Your task to perform on an android device: Search for sushi restaurants on Maps Image 0: 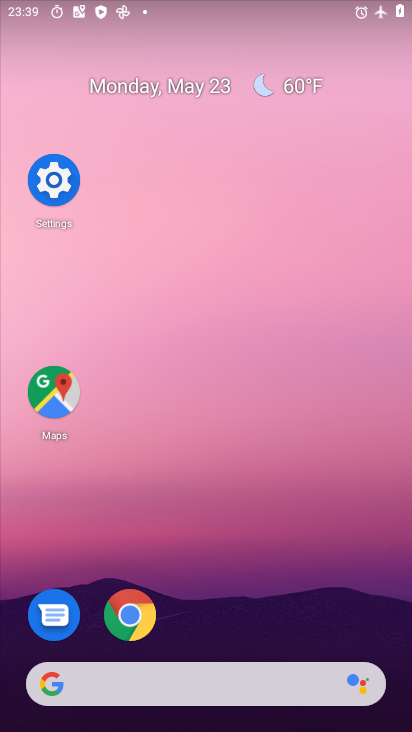
Step 0: click (60, 388)
Your task to perform on an android device: Search for sushi restaurants on Maps Image 1: 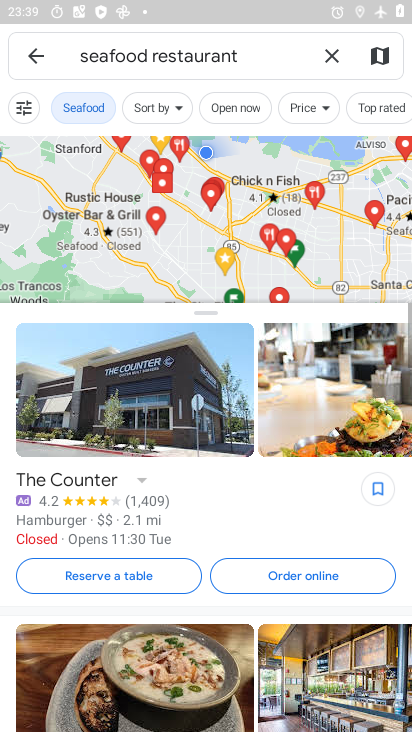
Step 1: click (331, 58)
Your task to perform on an android device: Search for sushi restaurants on Maps Image 2: 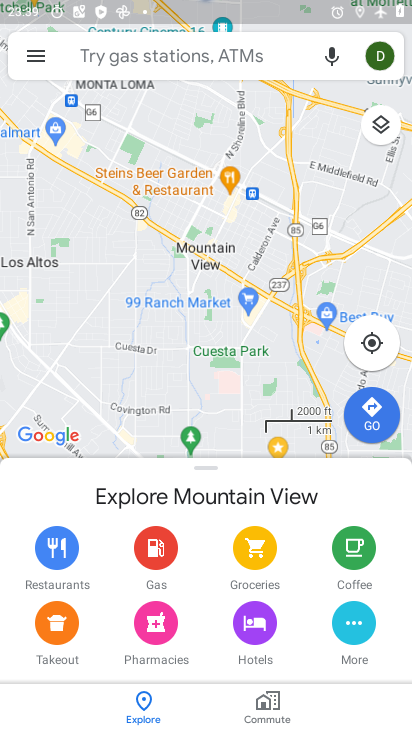
Step 2: click (174, 60)
Your task to perform on an android device: Search for sushi restaurants on Maps Image 3: 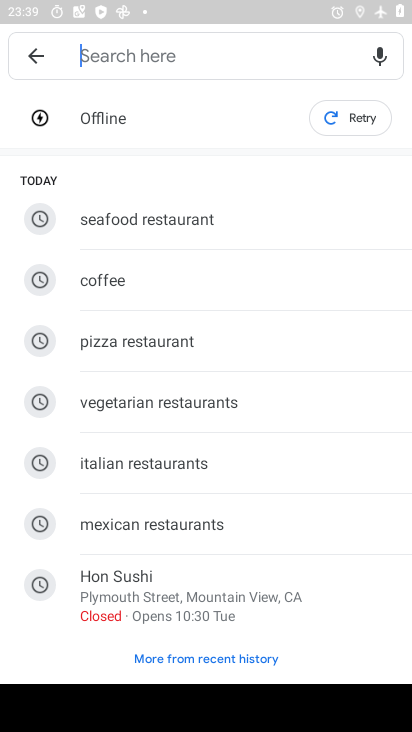
Step 3: drag from (159, 546) to (188, 269)
Your task to perform on an android device: Search for sushi restaurants on Maps Image 4: 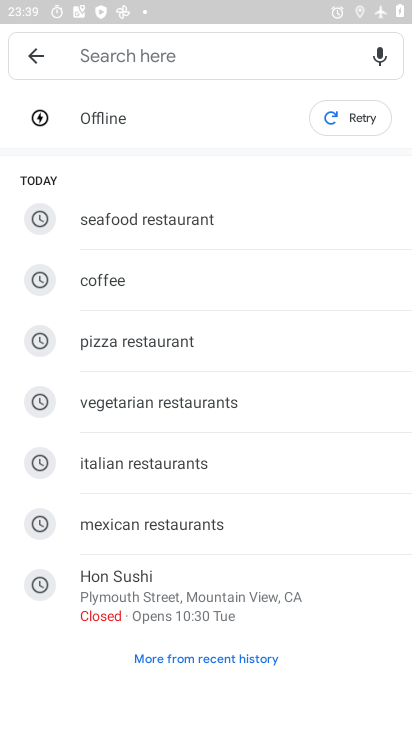
Step 4: click (169, 54)
Your task to perform on an android device: Search for sushi restaurants on Maps Image 5: 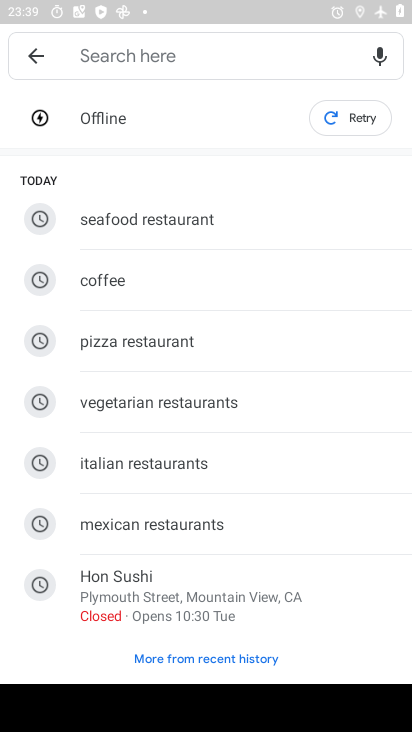
Step 5: type "sushi restaurent"
Your task to perform on an android device: Search for sushi restaurants on Maps Image 6: 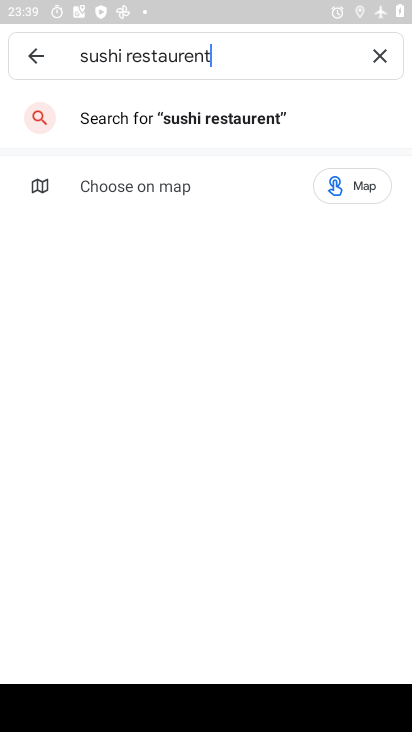
Step 6: click (215, 121)
Your task to perform on an android device: Search for sushi restaurants on Maps Image 7: 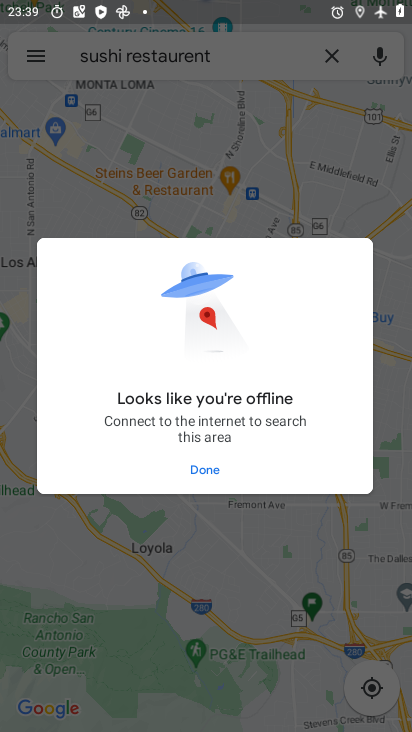
Step 7: task complete